Your task to perform on an android device: set default search engine in the chrome app Image 0: 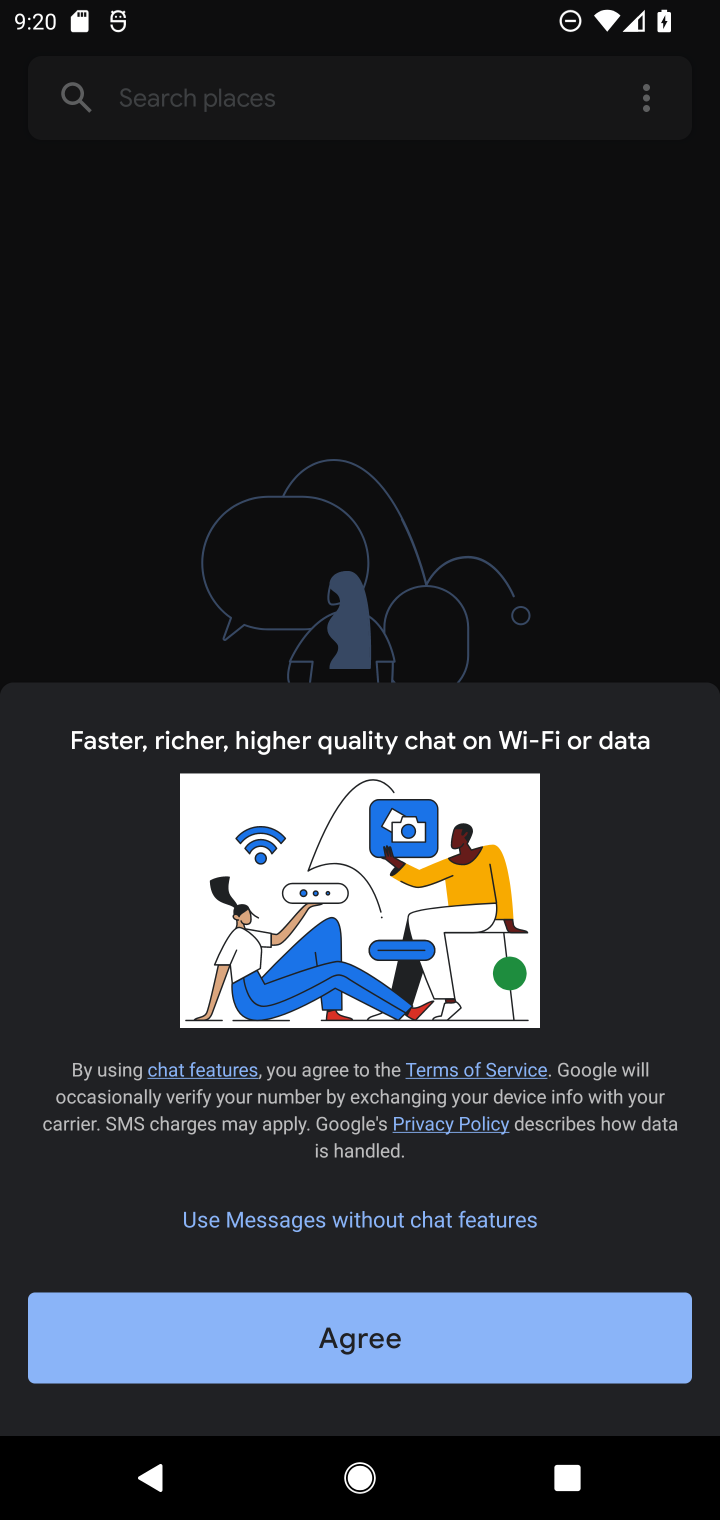
Step 0: press home button
Your task to perform on an android device: set default search engine in the chrome app Image 1: 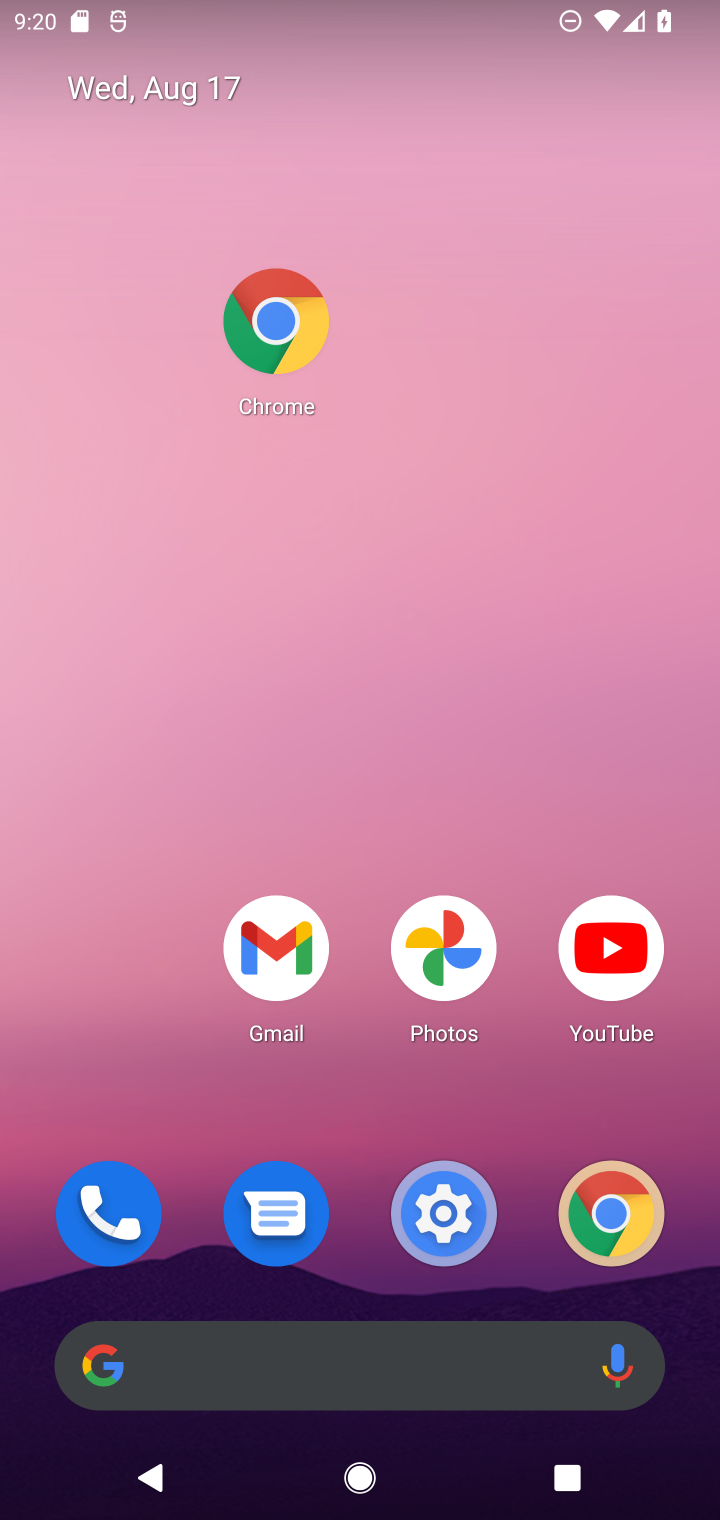
Step 1: click (628, 1212)
Your task to perform on an android device: set default search engine in the chrome app Image 2: 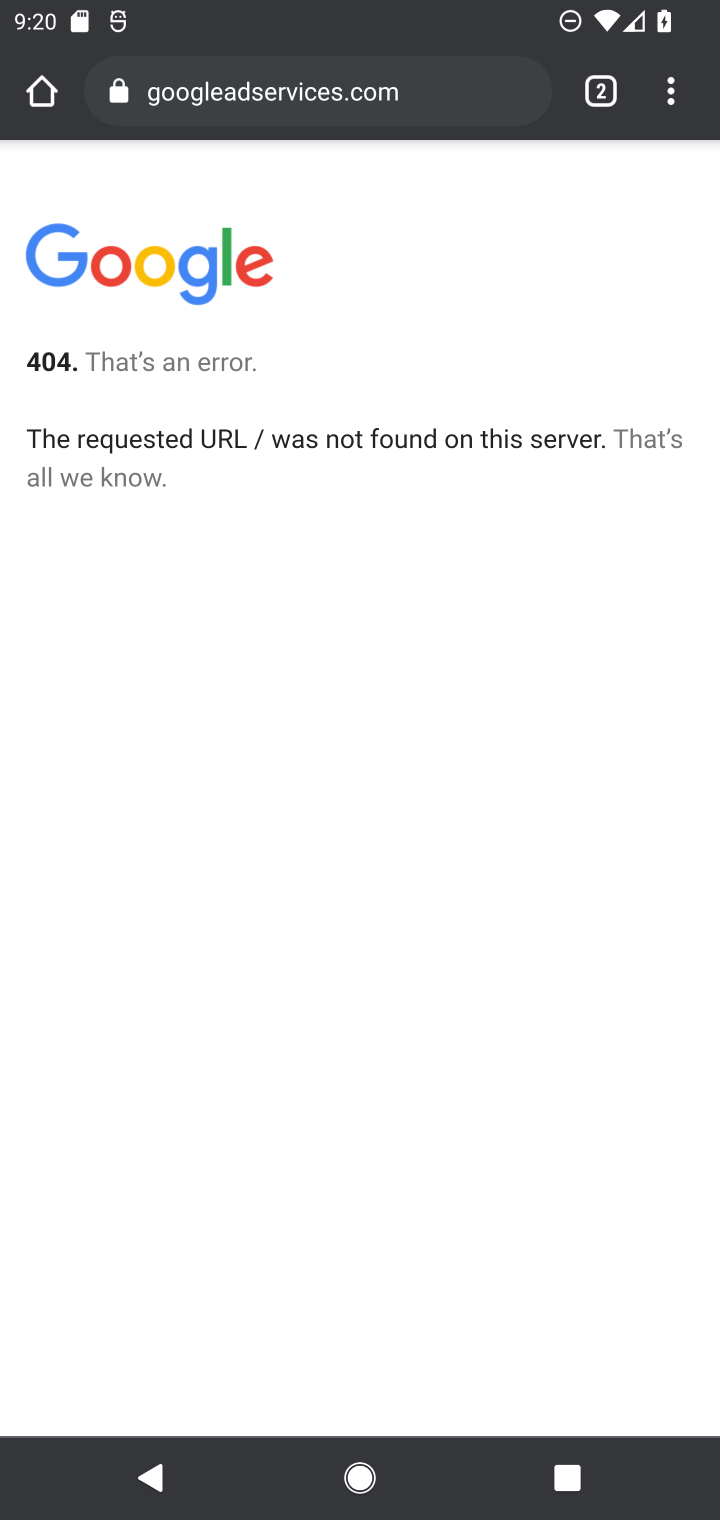
Step 2: click (662, 113)
Your task to perform on an android device: set default search engine in the chrome app Image 3: 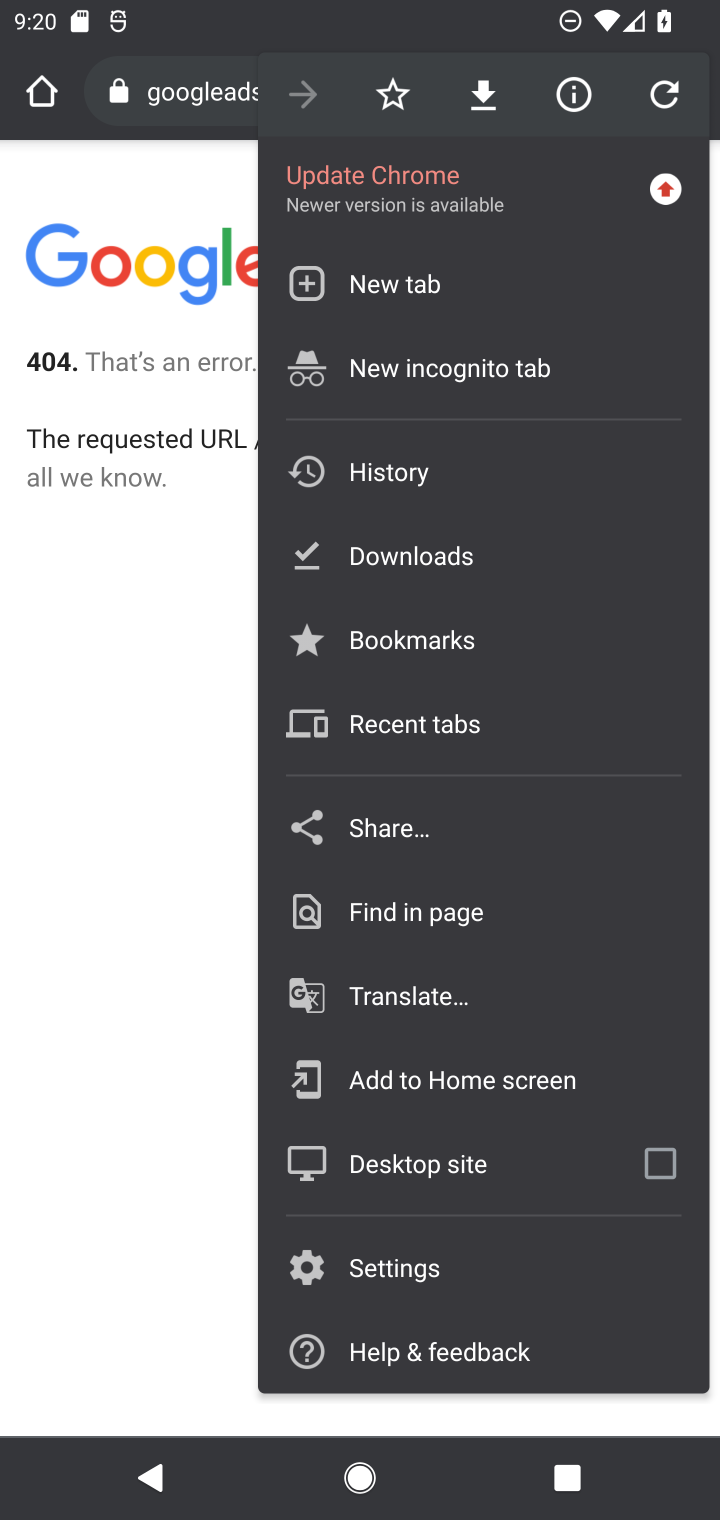
Step 3: click (429, 1280)
Your task to perform on an android device: set default search engine in the chrome app Image 4: 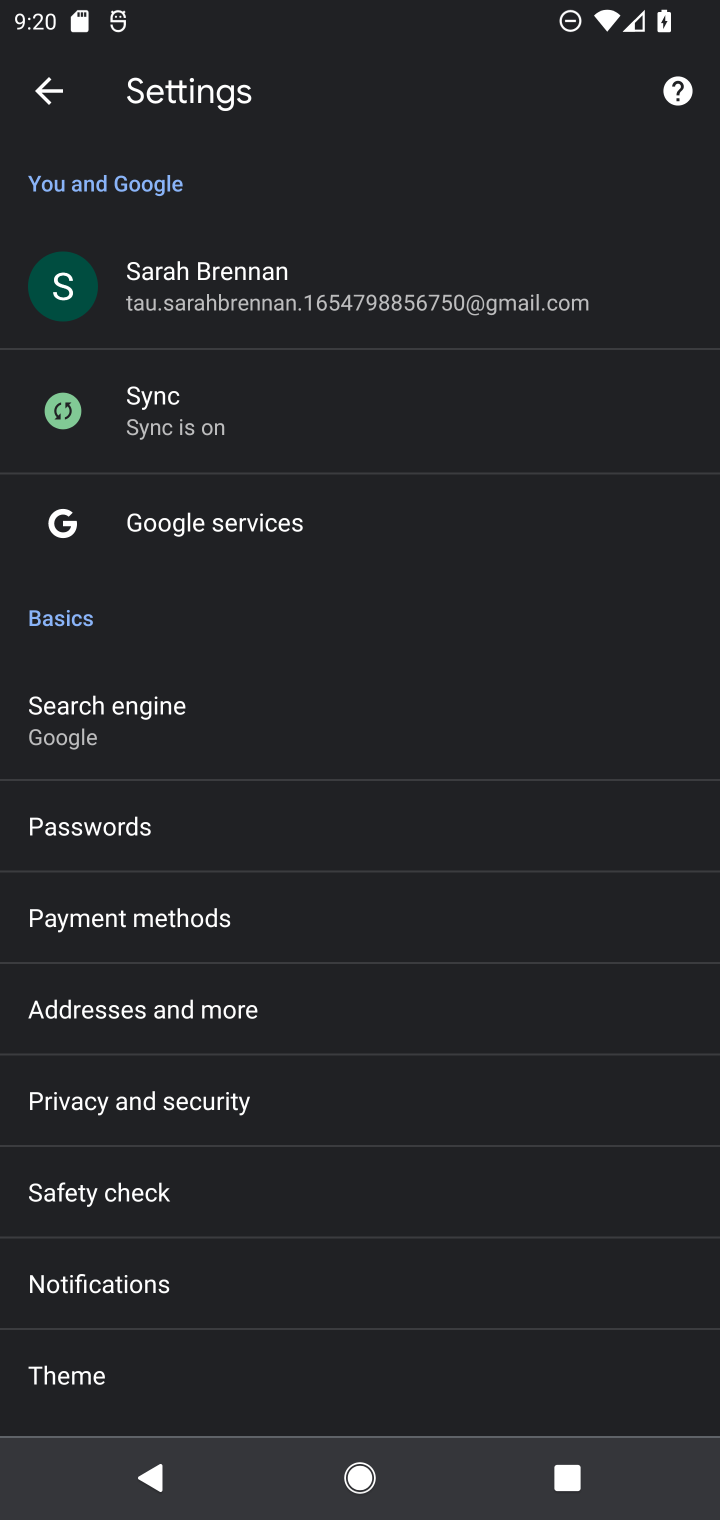
Step 4: drag from (248, 1290) to (314, 554)
Your task to perform on an android device: set default search engine in the chrome app Image 5: 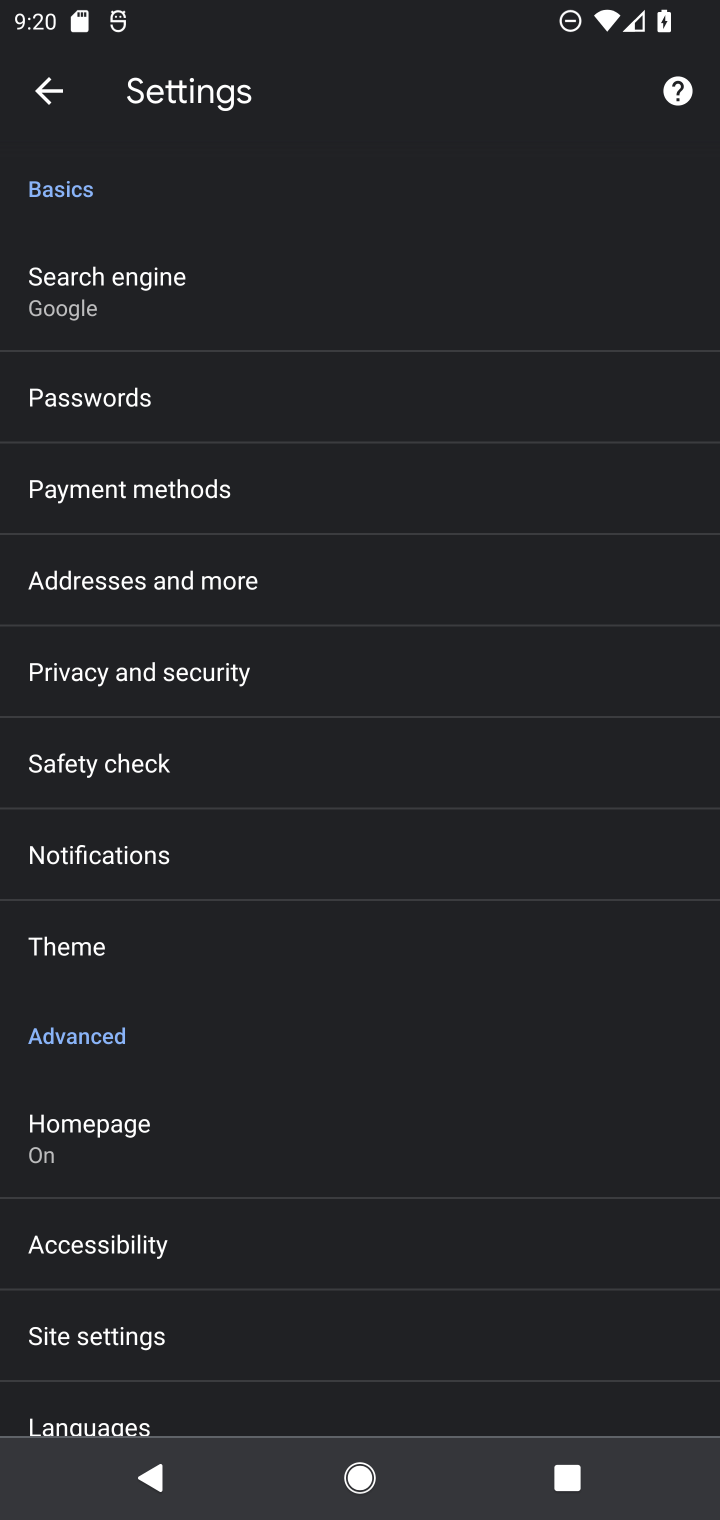
Step 5: click (373, 276)
Your task to perform on an android device: set default search engine in the chrome app Image 6: 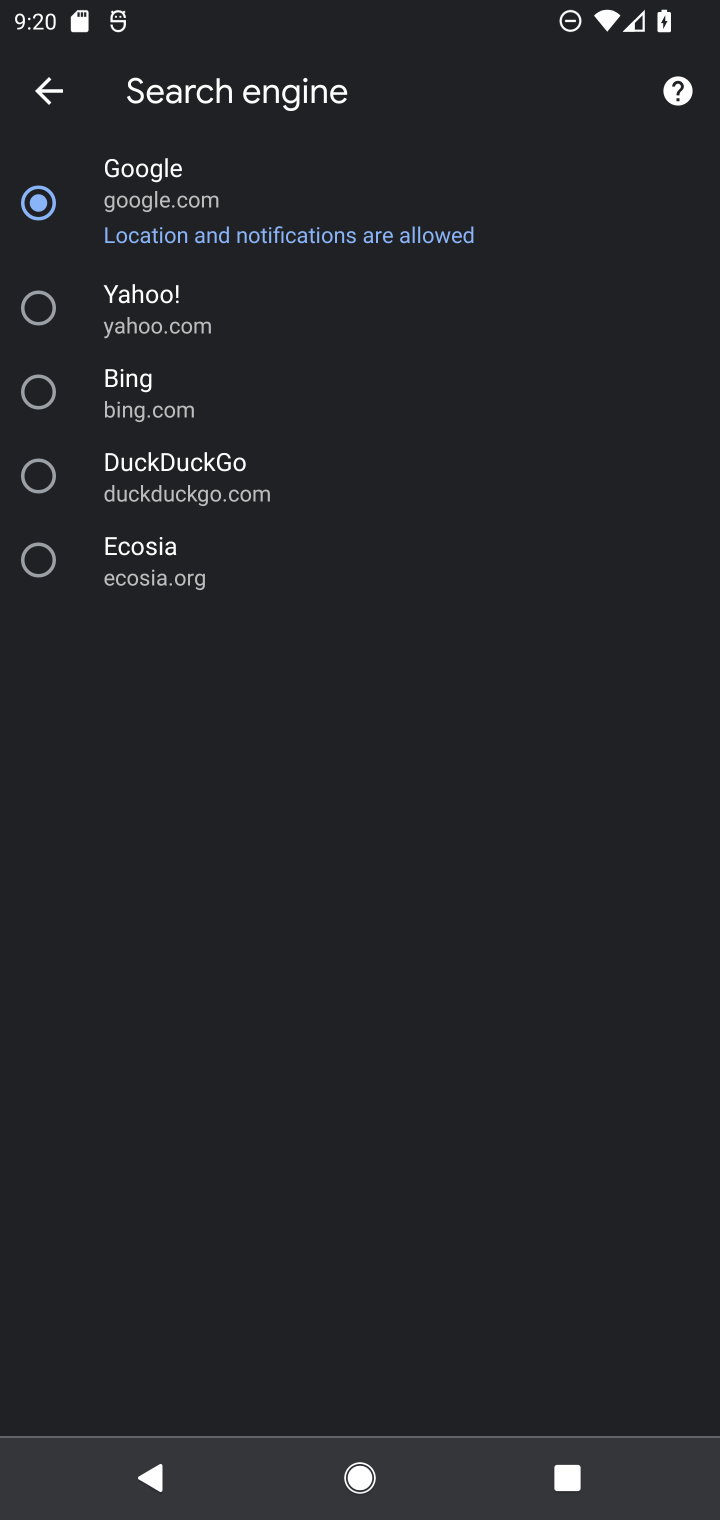
Step 6: click (327, 362)
Your task to perform on an android device: set default search engine in the chrome app Image 7: 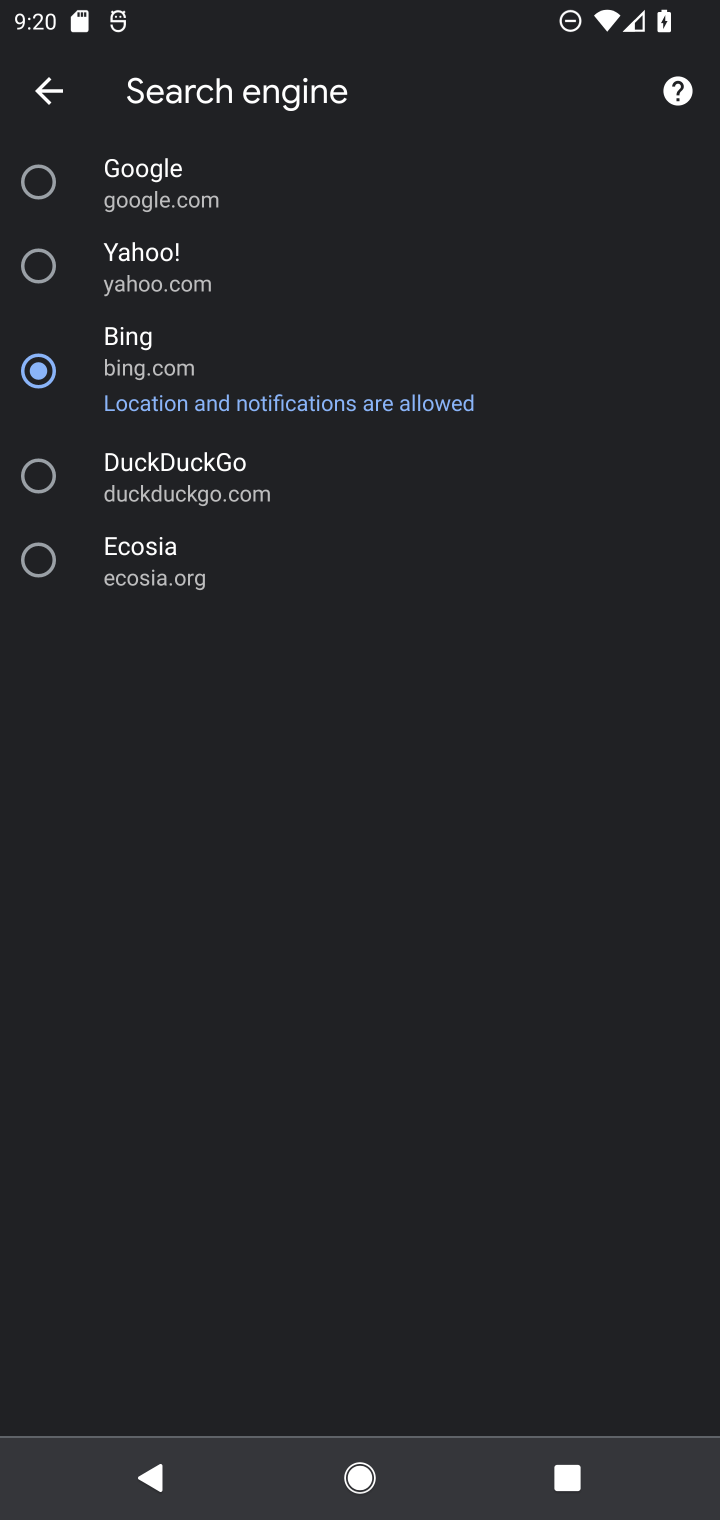
Step 7: task complete